Your task to perform on an android device: Is it going to rain today? Image 0: 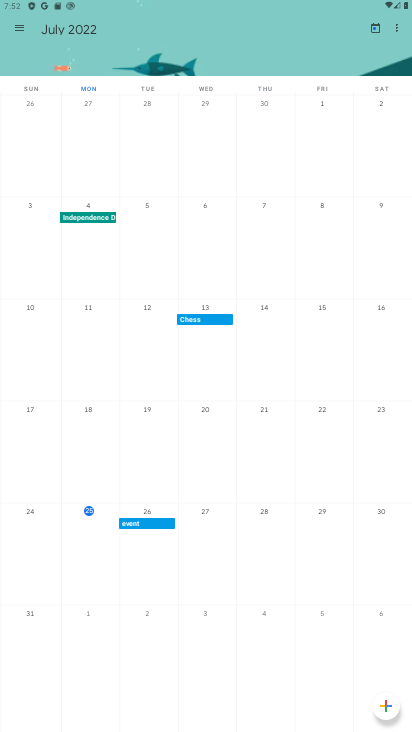
Step 0: task complete